Your task to perform on an android device: open app "Gmail" (install if not already installed) and go to login screen Image 0: 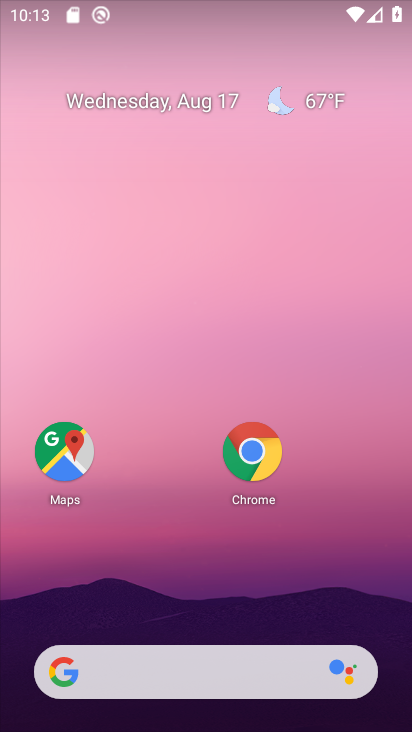
Step 0: click (228, 135)
Your task to perform on an android device: open app "Gmail" (install if not already installed) and go to login screen Image 1: 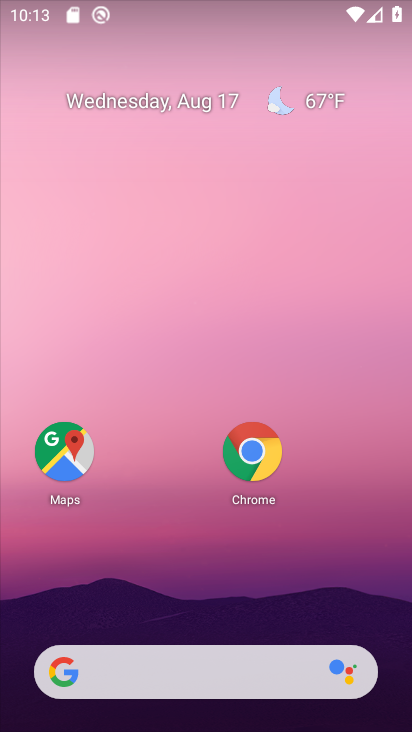
Step 1: drag from (176, 592) to (169, 94)
Your task to perform on an android device: open app "Gmail" (install if not already installed) and go to login screen Image 2: 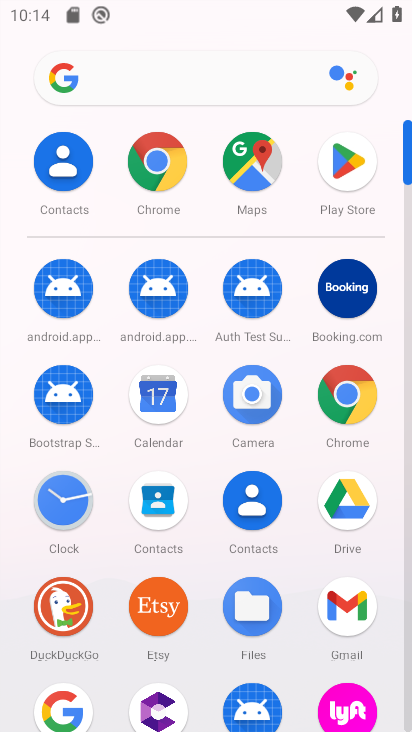
Step 2: click (340, 176)
Your task to perform on an android device: open app "Gmail" (install if not already installed) and go to login screen Image 3: 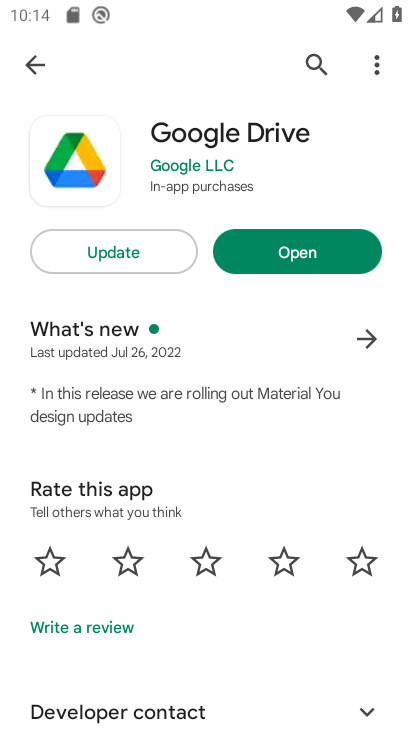
Step 3: click (39, 65)
Your task to perform on an android device: open app "Gmail" (install if not already installed) and go to login screen Image 4: 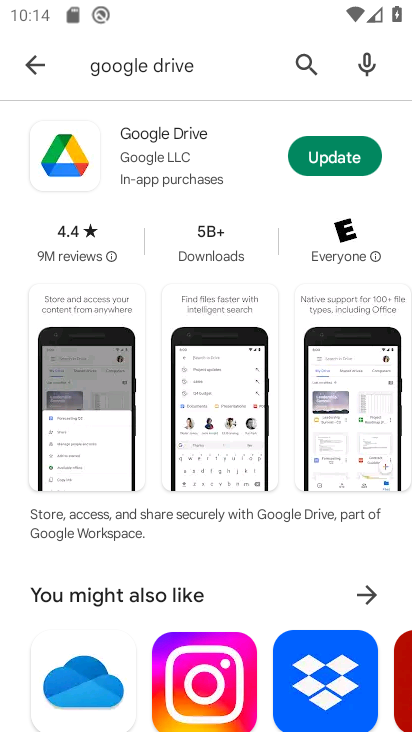
Step 4: click (37, 68)
Your task to perform on an android device: open app "Gmail" (install if not already installed) and go to login screen Image 5: 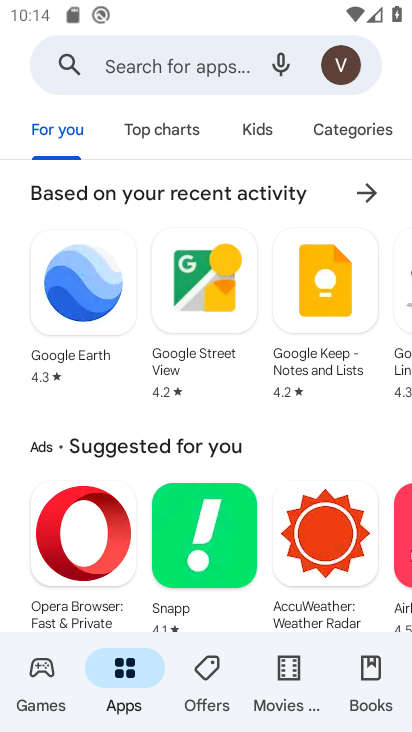
Step 5: click (148, 66)
Your task to perform on an android device: open app "Gmail" (install if not already installed) and go to login screen Image 6: 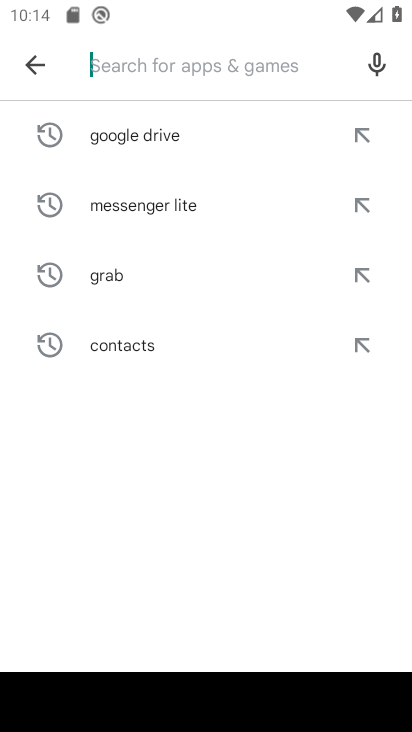
Step 6: type "Gmail"
Your task to perform on an android device: open app "Gmail" (install if not already installed) and go to login screen Image 7: 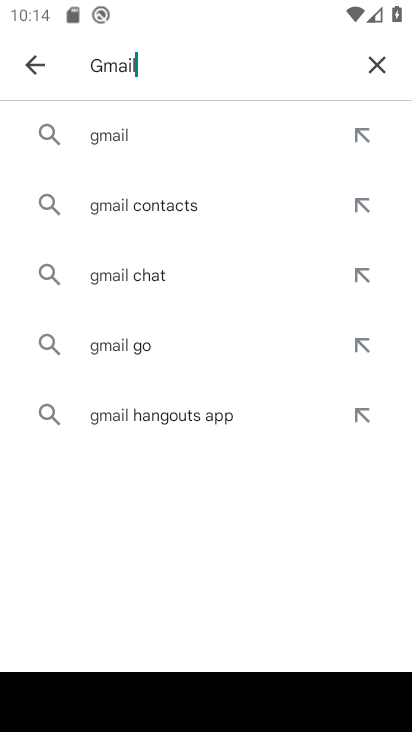
Step 7: click (108, 137)
Your task to perform on an android device: open app "Gmail" (install if not already installed) and go to login screen Image 8: 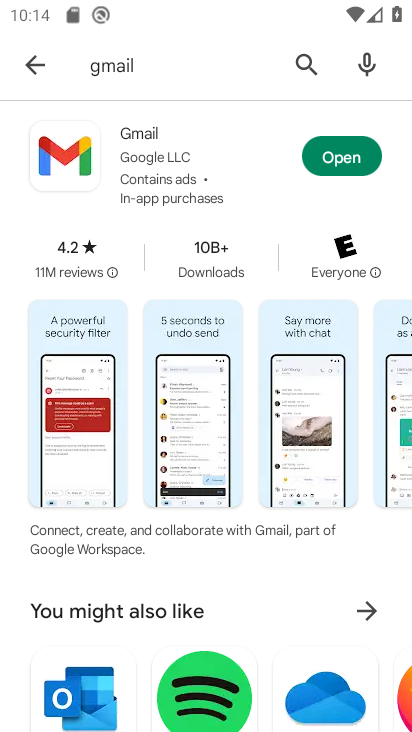
Step 8: click (341, 156)
Your task to perform on an android device: open app "Gmail" (install if not already installed) and go to login screen Image 9: 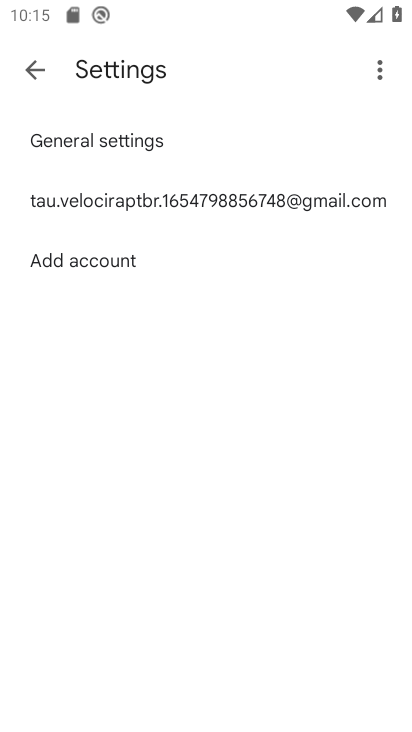
Step 9: click (32, 68)
Your task to perform on an android device: open app "Gmail" (install if not already installed) and go to login screen Image 10: 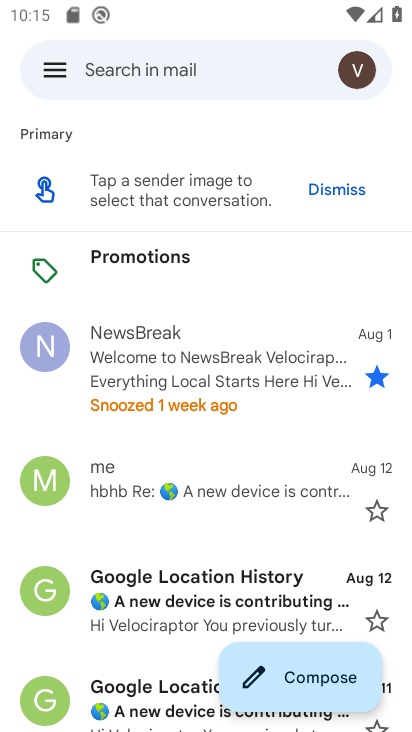
Step 10: click (363, 74)
Your task to perform on an android device: open app "Gmail" (install if not already installed) and go to login screen Image 11: 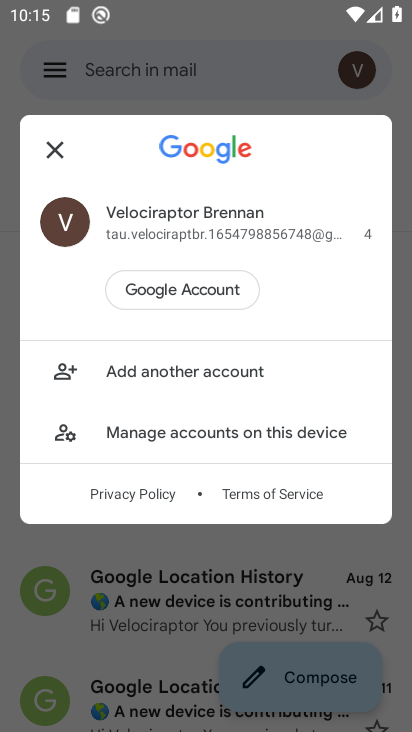
Step 11: task complete